Your task to perform on an android device: delete a single message in the gmail app Image 0: 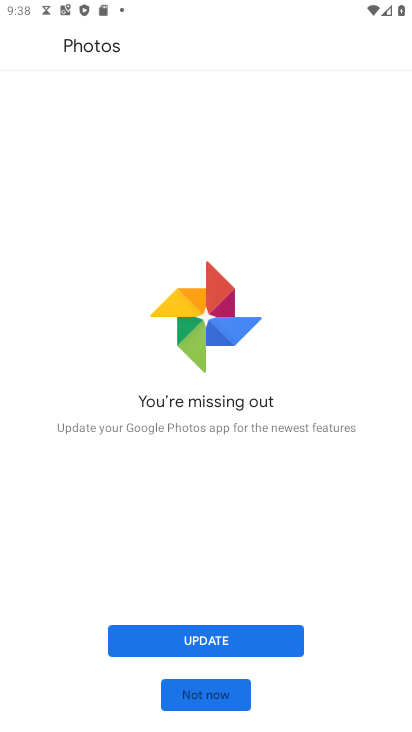
Step 0: press home button
Your task to perform on an android device: delete a single message in the gmail app Image 1: 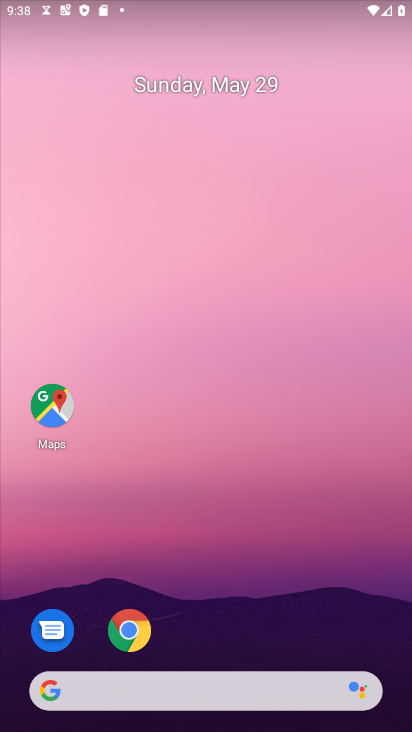
Step 1: click (253, 596)
Your task to perform on an android device: delete a single message in the gmail app Image 2: 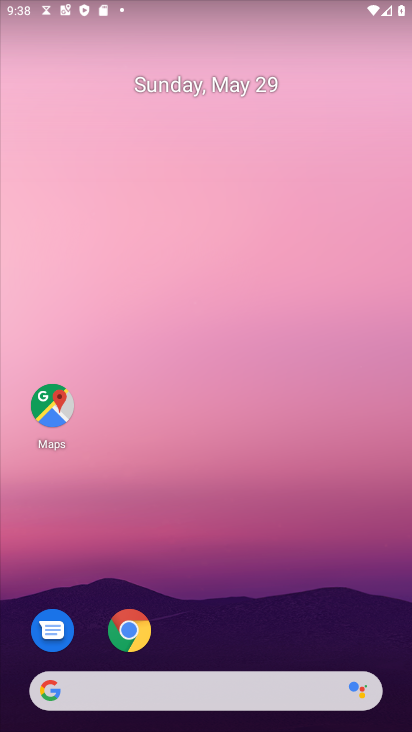
Step 2: drag from (253, 596) to (263, 46)
Your task to perform on an android device: delete a single message in the gmail app Image 3: 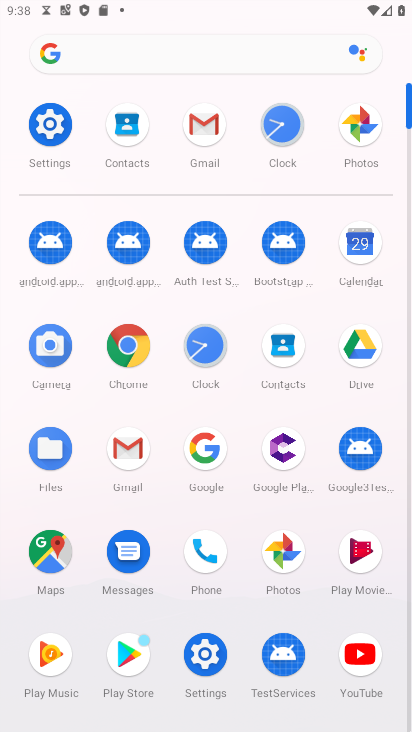
Step 3: click (211, 123)
Your task to perform on an android device: delete a single message in the gmail app Image 4: 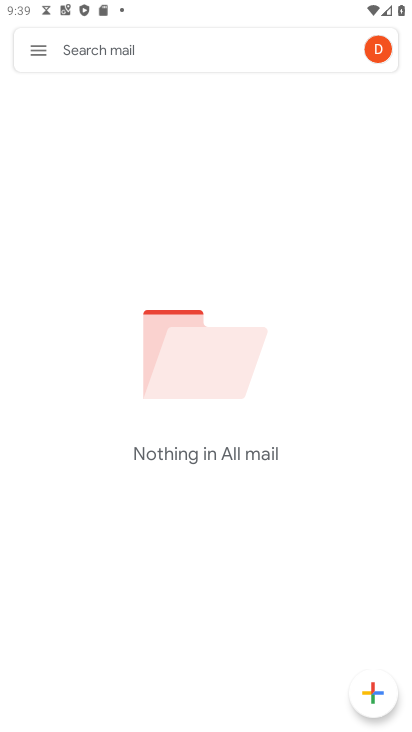
Step 4: click (43, 47)
Your task to perform on an android device: delete a single message in the gmail app Image 5: 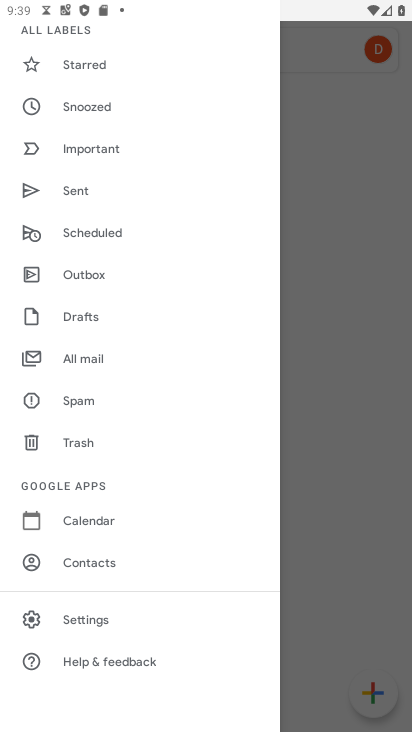
Step 5: click (96, 360)
Your task to perform on an android device: delete a single message in the gmail app Image 6: 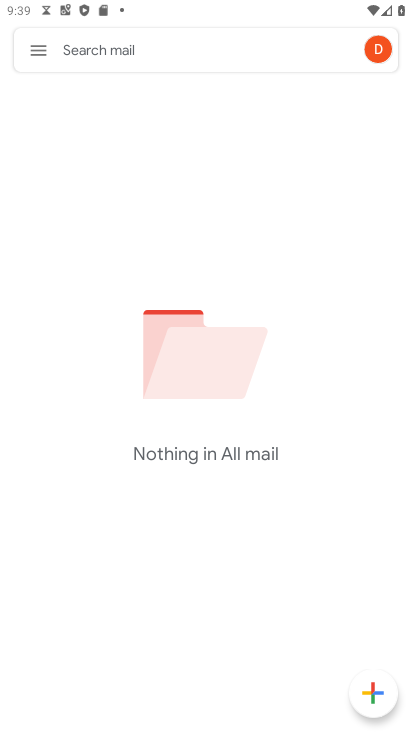
Step 6: task complete